Your task to perform on an android device: add a label to a message in the gmail app Image 0: 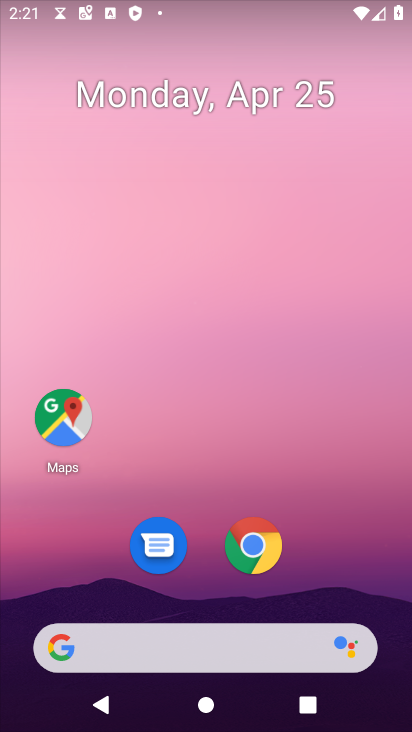
Step 0: drag from (294, 636) to (287, 146)
Your task to perform on an android device: add a label to a message in the gmail app Image 1: 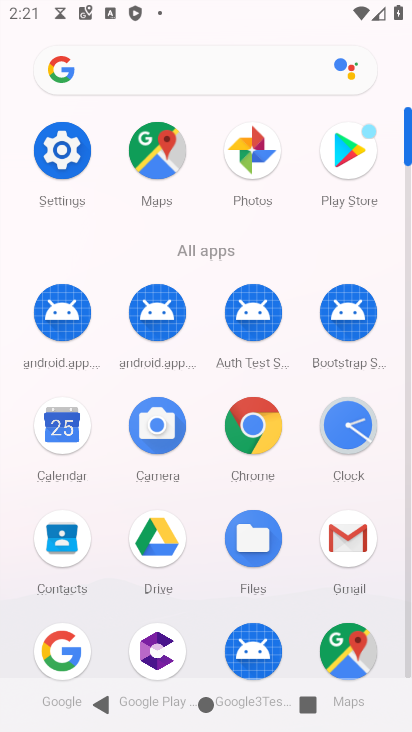
Step 1: click (342, 548)
Your task to perform on an android device: add a label to a message in the gmail app Image 2: 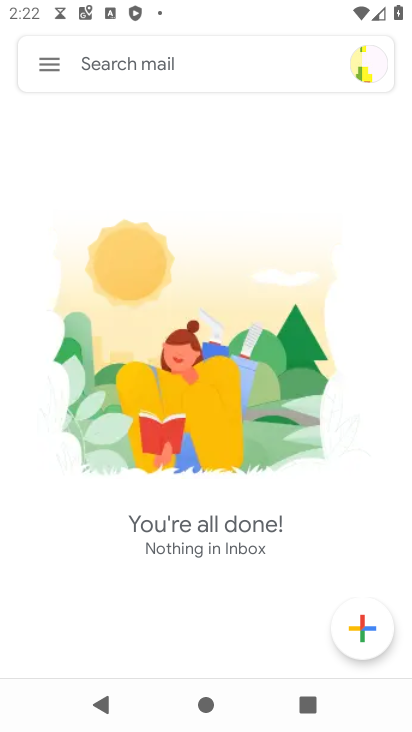
Step 2: click (46, 53)
Your task to perform on an android device: add a label to a message in the gmail app Image 3: 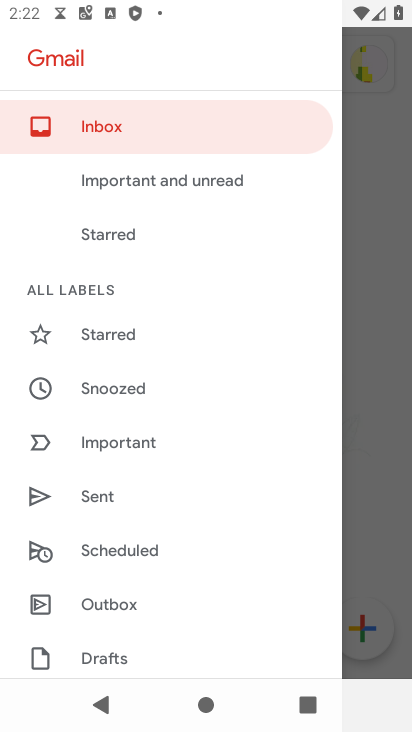
Step 3: drag from (209, 599) to (205, 137)
Your task to perform on an android device: add a label to a message in the gmail app Image 4: 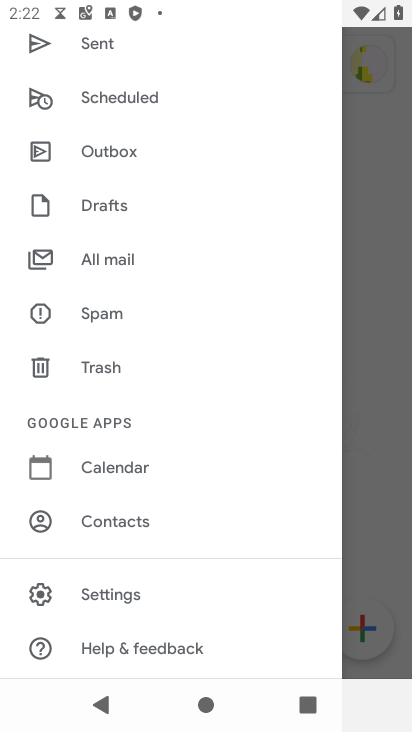
Step 4: click (101, 253)
Your task to perform on an android device: add a label to a message in the gmail app Image 5: 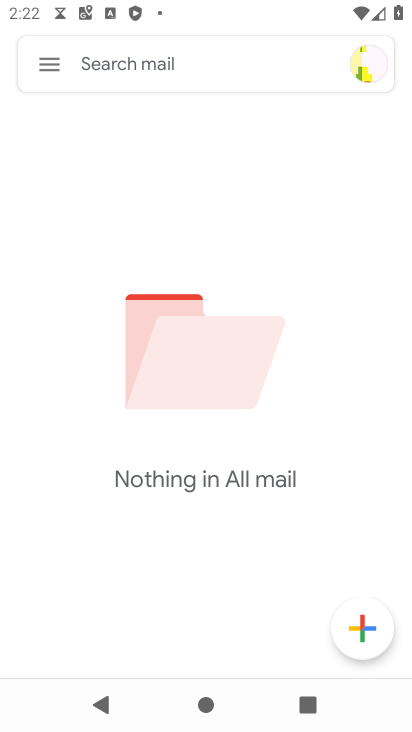
Step 5: task complete